Your task to perform on an android device: Show me recent news Image 0: 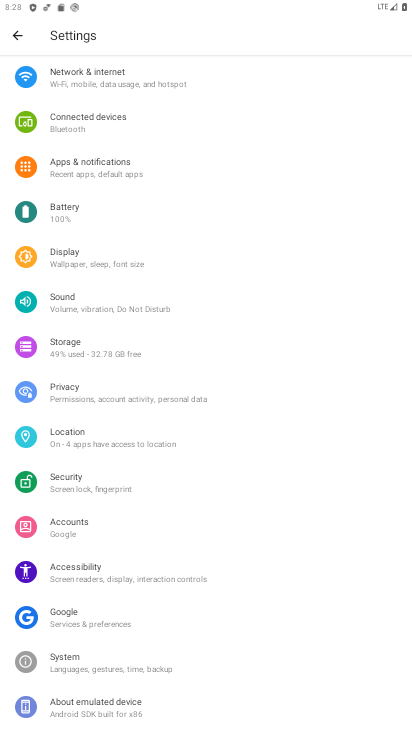
Step 0: press home button
Your task to perform on an android device: Show me recent news Image 1: 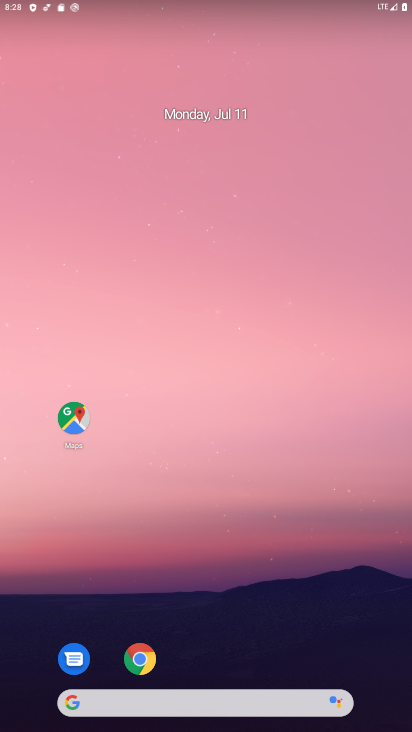
Step 1: drag from (251, 595) to (259, 0)
Your task to perform on an android device: Show me recent news Image 2: 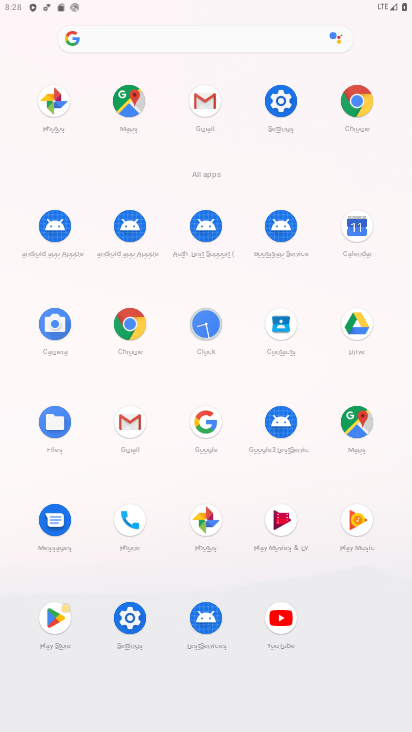
Step 2: click (210, 35)
Your task to perform on an android device: Show me recent news Image 3: 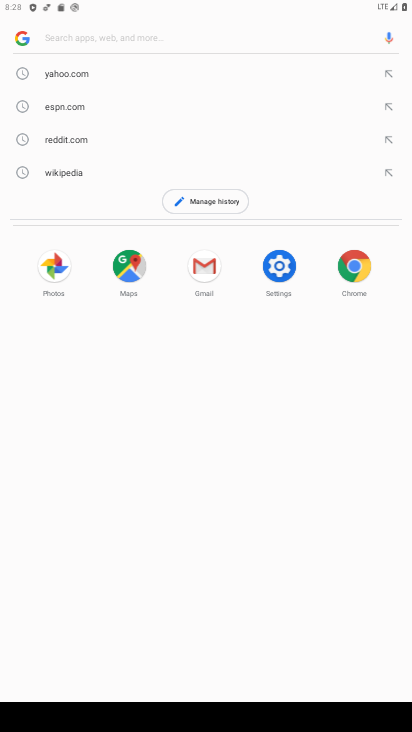
Step 3: type "recent news"
Your task to perform on an android device: Show me recent news Image 4: 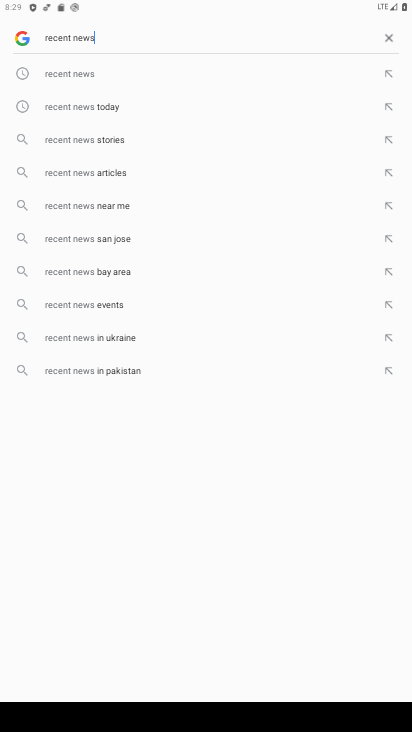
Step 4: click (80, 72)
Your task to perform on an android device: Show me recent news Image 5: 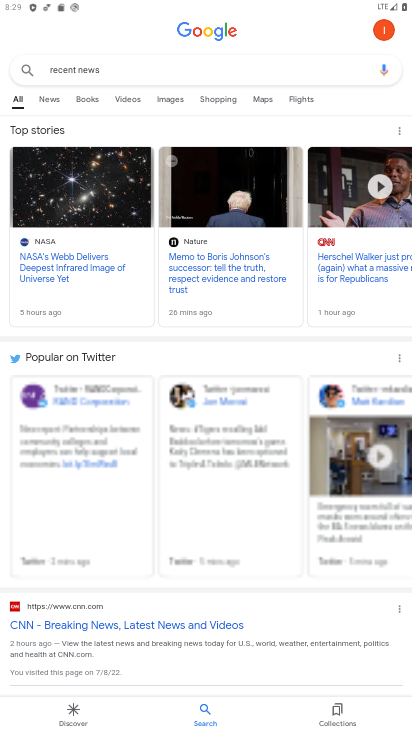
Step 5: task complete